Your task to perform on an android device: Go to Yahoo.com Image 0: 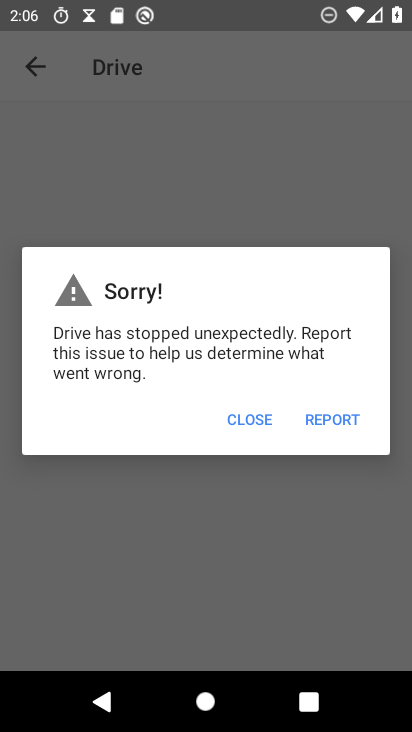
Step 0: press home button
Your task to perform on an android device: Go to Yahoo.com Image 1: 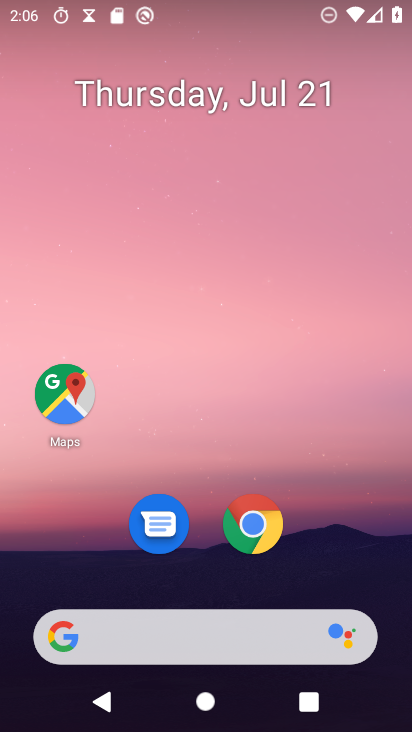
Step 1: press home button
Your task to perform on an android device: Go to Yahoo.com Image 2: 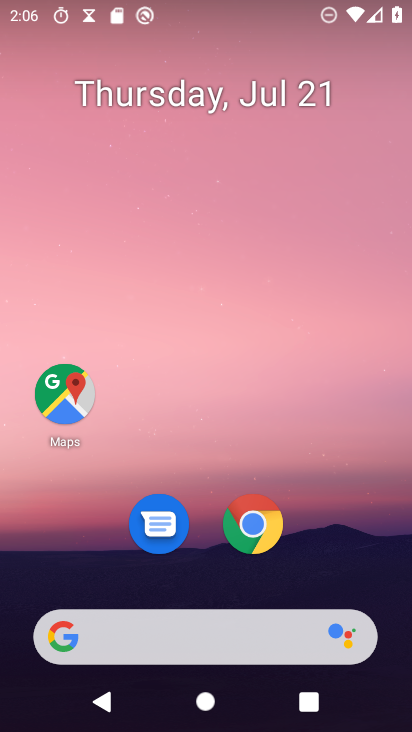
Step 2: click (259, 542)
Your task to perform on an android device: Go to Yahoo.com Image 3: 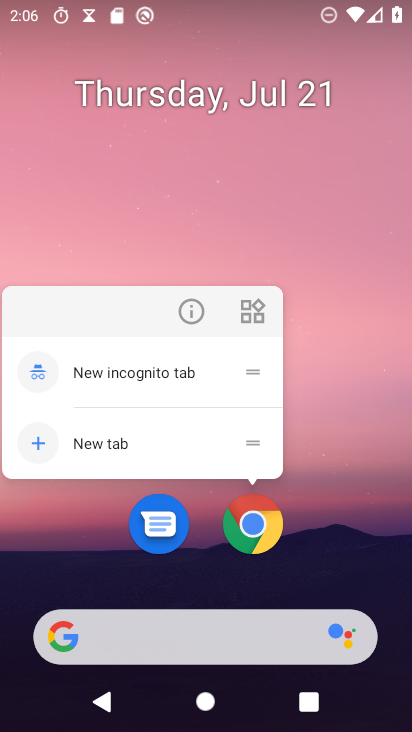
Step 3: click (257, 532)
Your task to perform on an android device: Go to Yahoo.com Image 4: 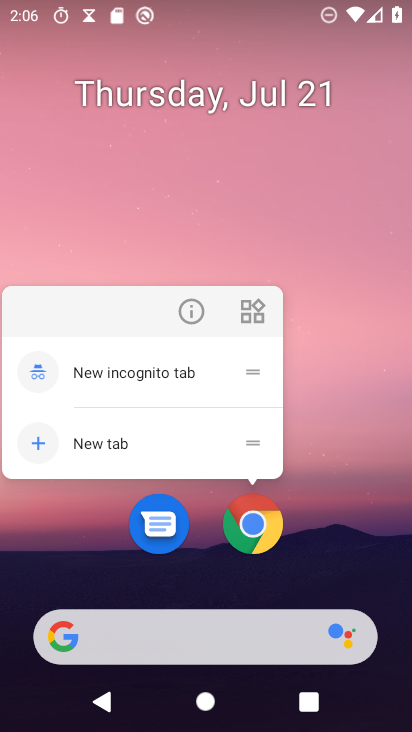
Step 4: click (250, 526)
Your task to perform on an android device: Go to Yahoo.com Image 5: 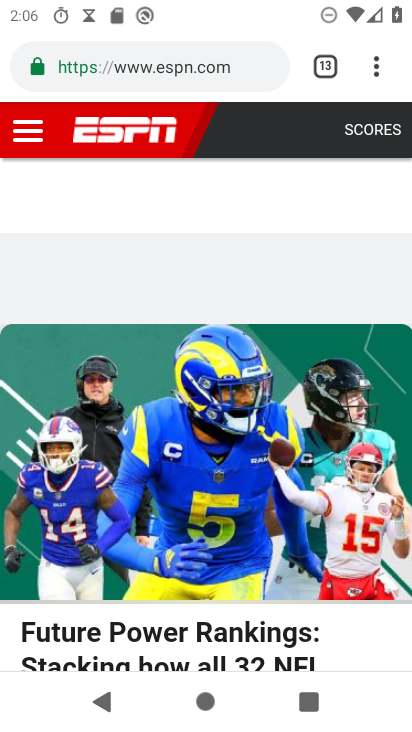
Step 5: drag from (380, 66) to (193, 136)
Your task to perform on an android device: Go to Yahoo.com Image 6: 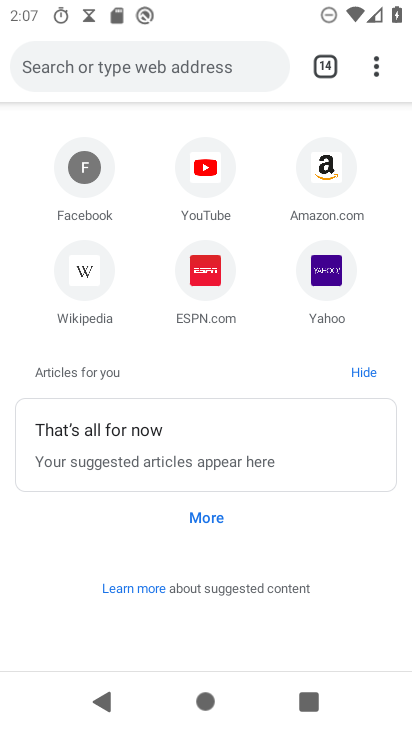
Step 6: click (330, 274)
Your task to perform on an android device: Go to Yahoo.com Image 7: 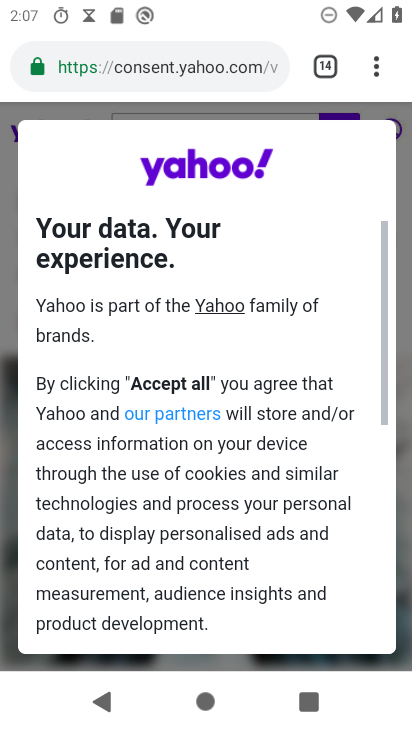
Step 7: drag from (251, 552) to (375, 134)
Your task to perform on an android device: Go to Yahoo.com Image 8: 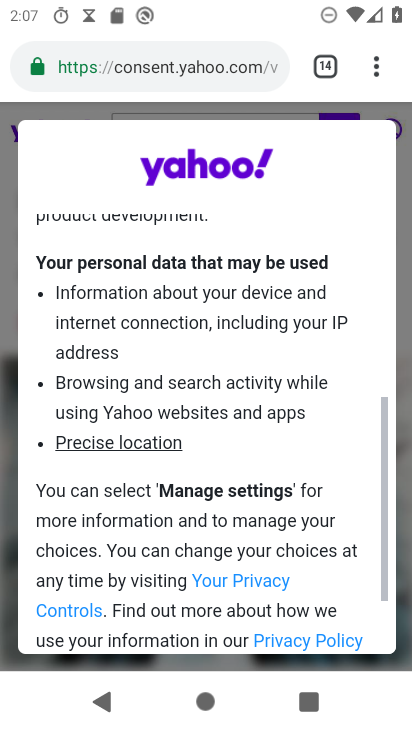
Step 8: drag from (275, 509) to (381, 127)
Your task to perform on an android device: Go to Yahoo.com Image 9: 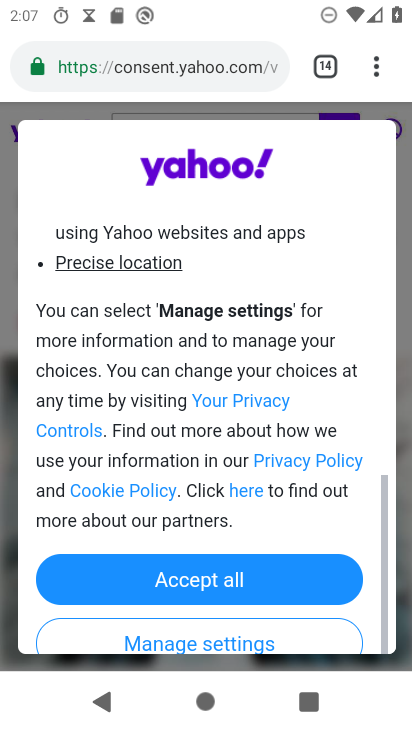
Step 9: click (230, 568)
Your task to perform on an android device: Go to Yahoo.com Image 10: 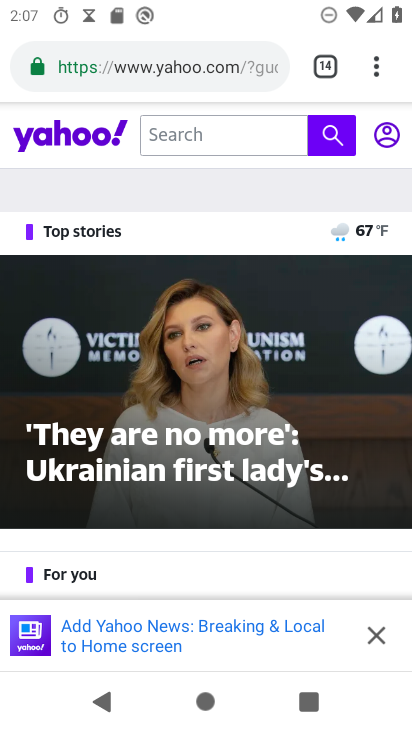
Step 10: task complete